Your task to perform on an android device: remove spam from my inbox in the gmail app Image 0: 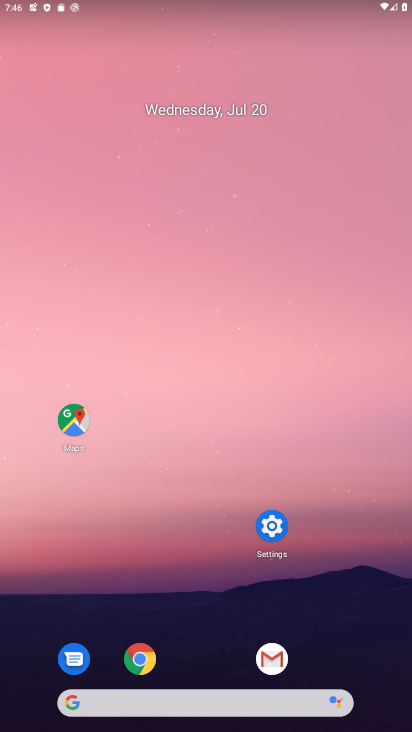
Step 0: click (266, 658)
Your task to perform on an android device: remove spam from my inbox in the gmail app Image 1: 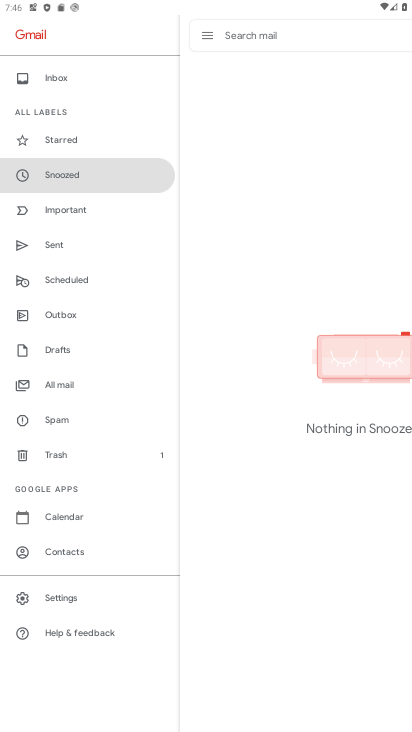
Step 1: click (65, 420)
Your task to perform on an android device: remove spam from my inbox in the gmail app Image 2: 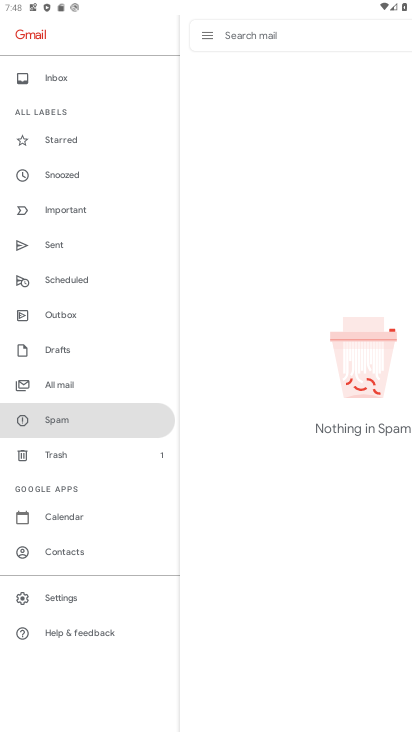
Step 2: task complete